Your task to perform on an android device: set default search engine in the chrome app Image 0: 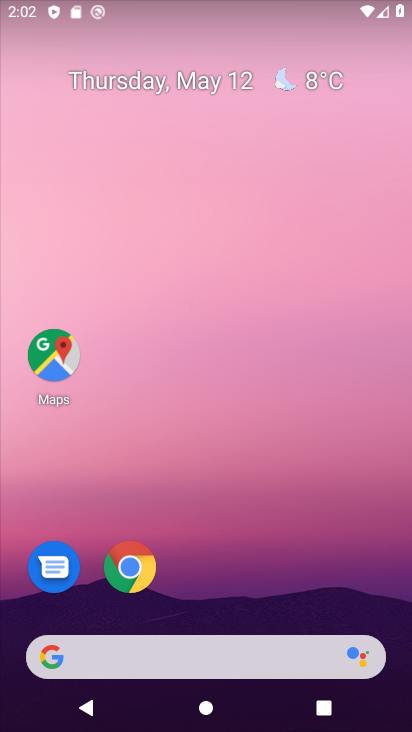
Step 0: click (128, 569)
Your task to perform on an android device: set default search engine in the chrome app Image 1: 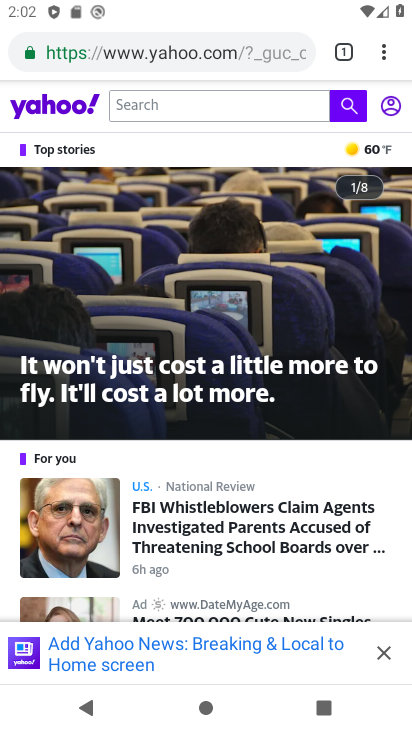
Step 1: drag from (383, 53) to (264, 604)
Your task to perform on an android device: set default search engine in the chrome app Image 2: 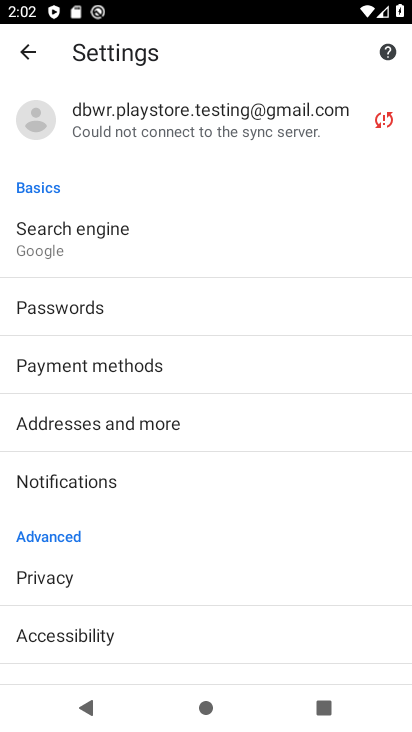
Step 2: click (131, 232)
Your task to perform on an android device: set default search engine in the chrome app Image 3: 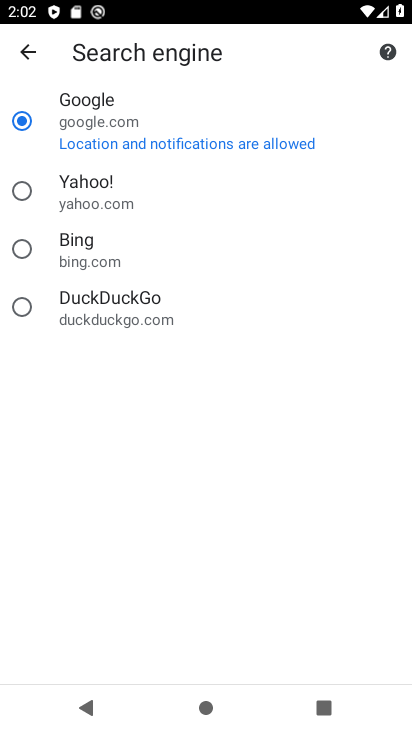
Step 3: click (130, 250)
Your task to perform on an android device: set default search engine in the chrome app Image 4: 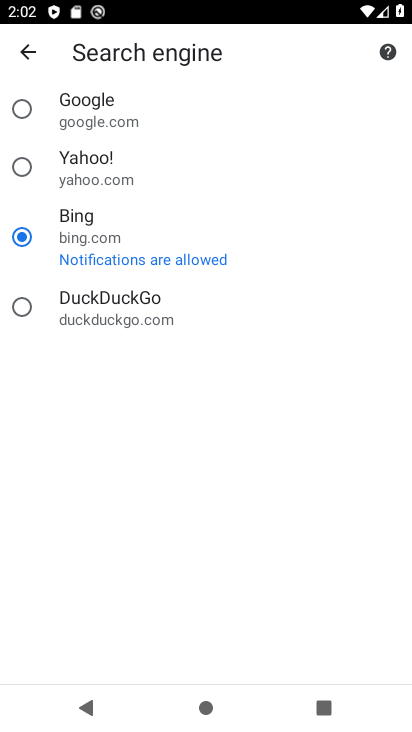
Step 4: task complete